Your task to perform on an android device: turn on wifi Image 0: 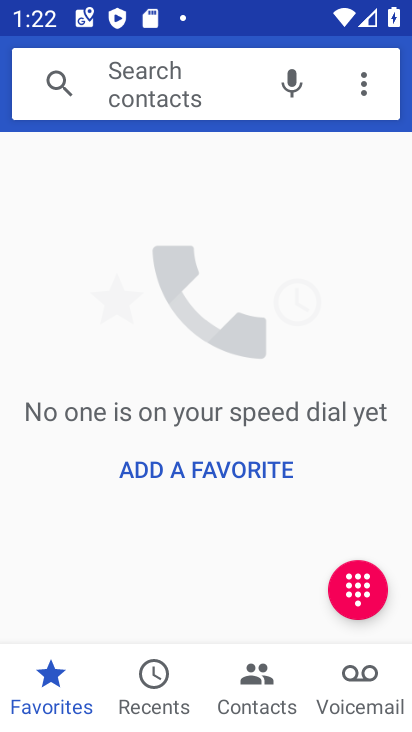
Step 0: press home button
Your task to perform on an android device: turn on wifi Image 1: 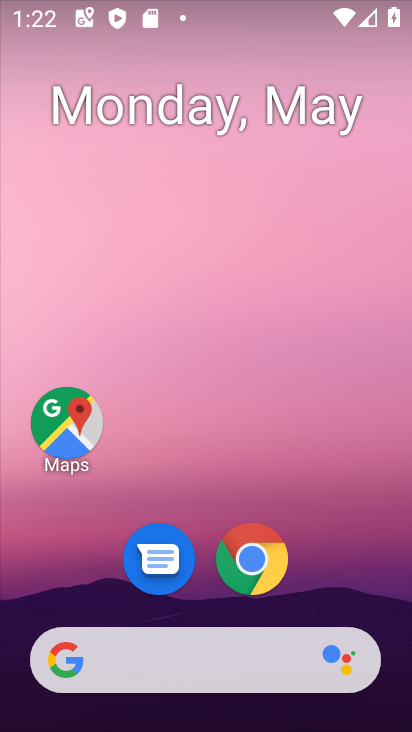
Step 1: drag from (207, 712) to (291, 138)
Your task to perform on an android device: turn on wifi Image 2: 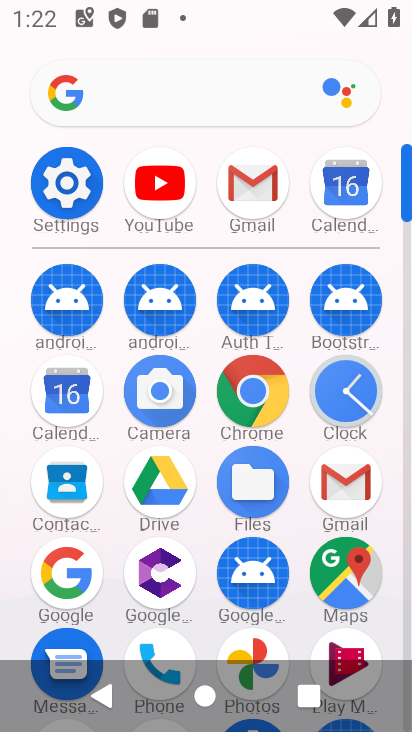
Step 2: click (89, 178)
Your task to perform on an android device: turn on wifi Image 3: 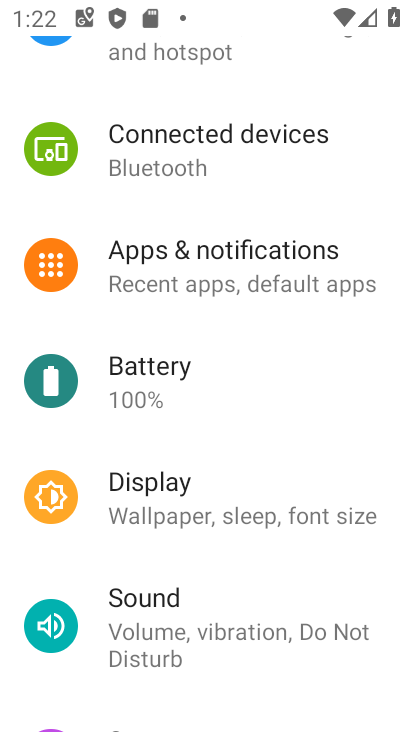
Step 3: drag from (288, 153) to (242, 655)
Your task to perform on an android device: turn on wifi Image 4: 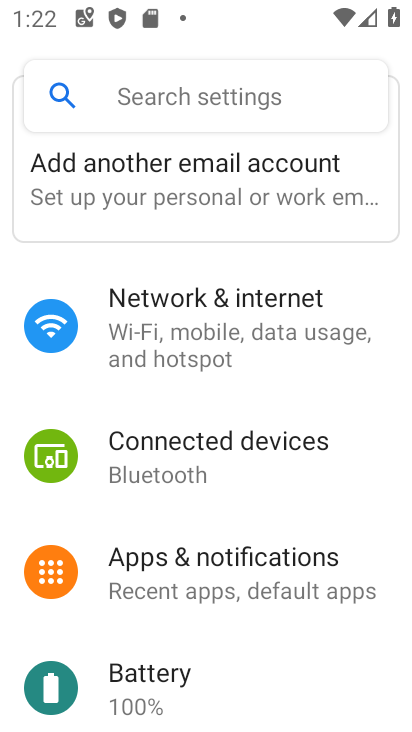
Step 4: click (205, 349)
Your task to perform on an android device: turn on wifi Image 5: 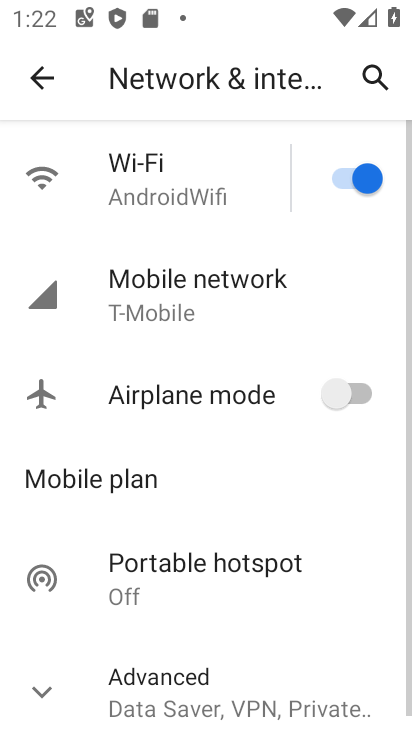
Step 5: task complete